Your task to perform on an android device: toggle translation in the chrome app Image 0: 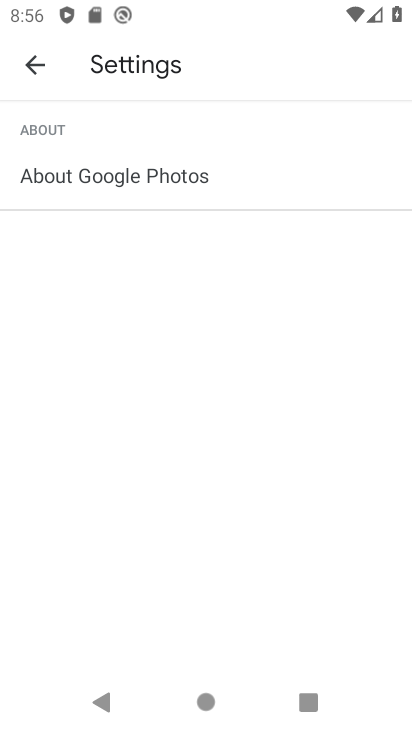
Step 0: press home button
Your task to perform on an android device: toggle translation in the chrome app Image 1: 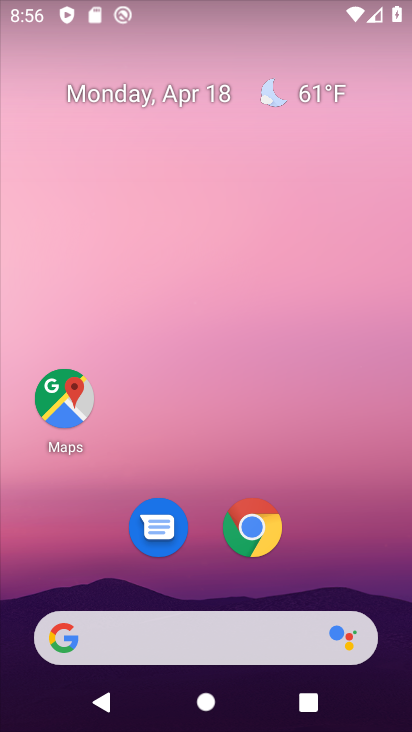
Step 1: click (250, 517)
Your task to perform on an android device: toggle translation in the chrome app Image 2: 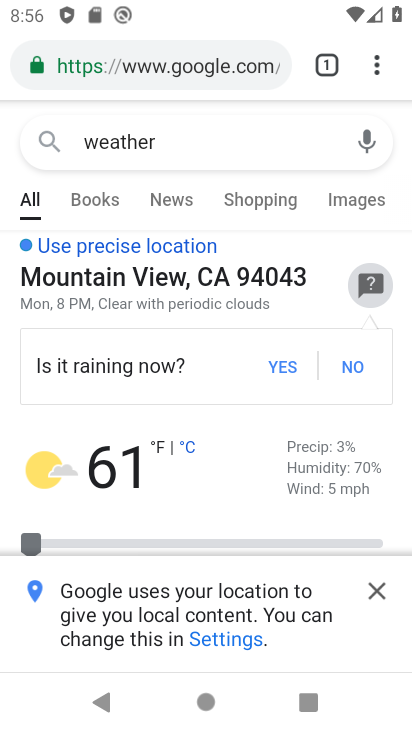
Step 2: click (386, 76)
Your task to perform on an android device: toggle translation in the chrome app Image 3: 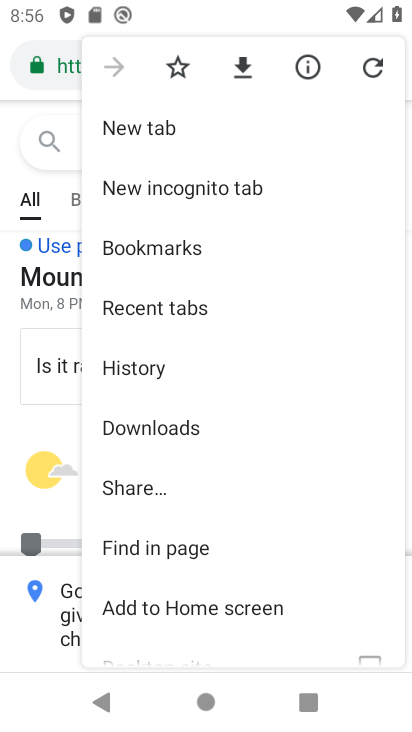
Step 3: drag from (213, 507) to (291, 86)
Your task to perform on an android device: toggle translation in the chrome app Image 4: 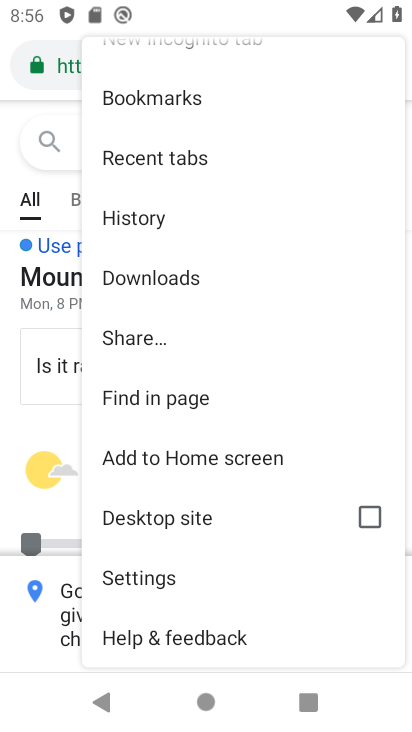
Step 4: click (141, 581)
Your task to perform on an android device: toggle translation in the chrome app Image 5: 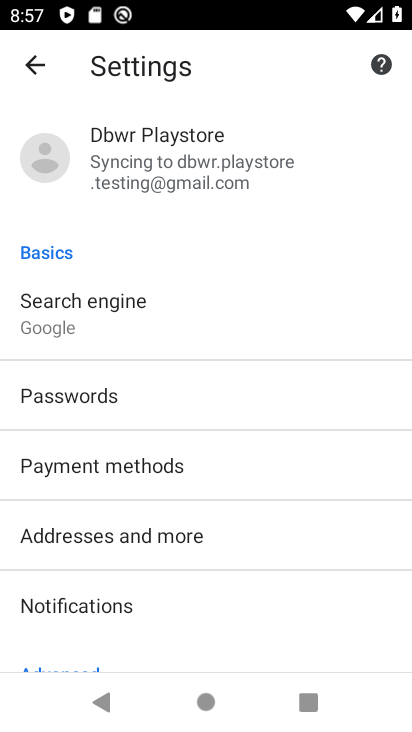
Step 5: drag from (161, 611) to (279, 154)
Your task to perform on an android device: toggle translation in the chrome app Image 6: 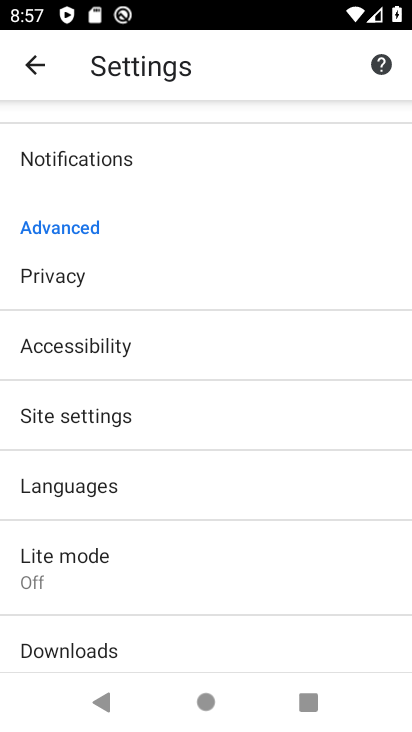
Step 6: click (152, 489)
Your task to perform on an android device: toggle translation in the chrome app Image 7: 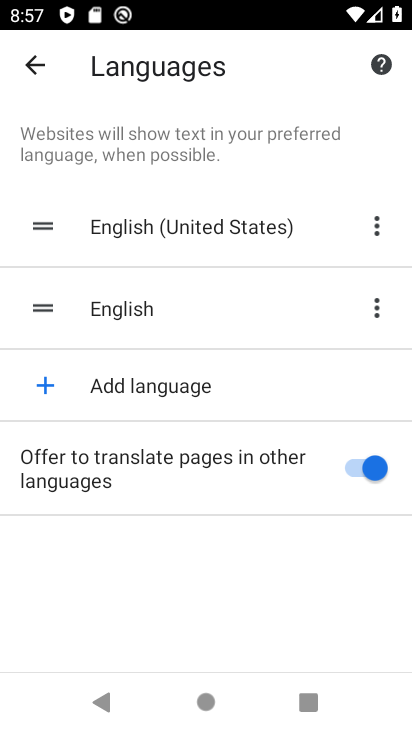
Step 7: click (381, 471)
Your task to perform on an android device: toggle translation in the chrome app Image 8: 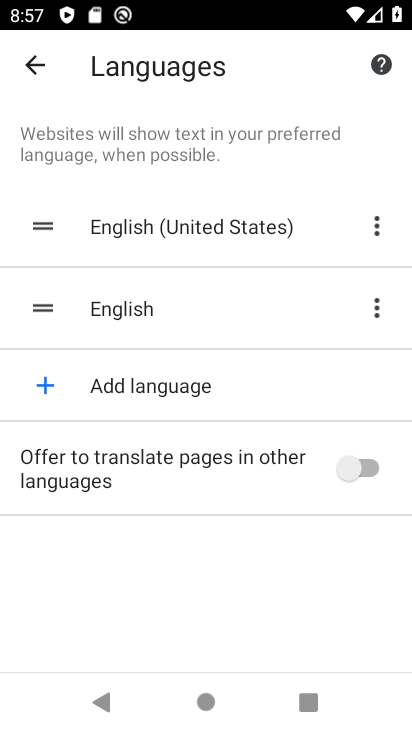
Step 8: click (381, 471)
Your task to perform on an android device: toggle translation in the chrome app Image 9: 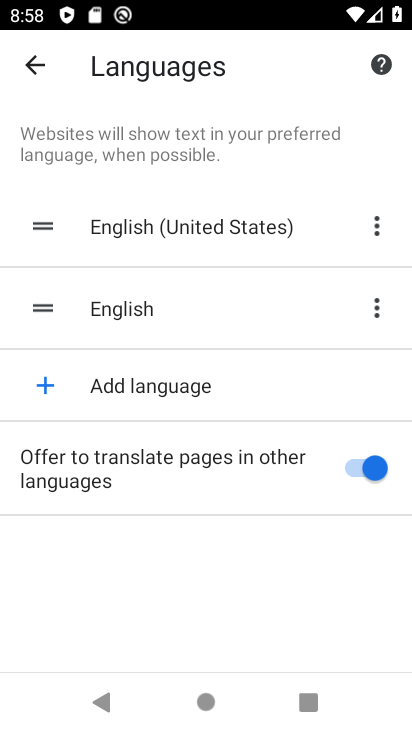
Step 9: task complete